Your task to perform on an android device: all mails in gmail Image 0: 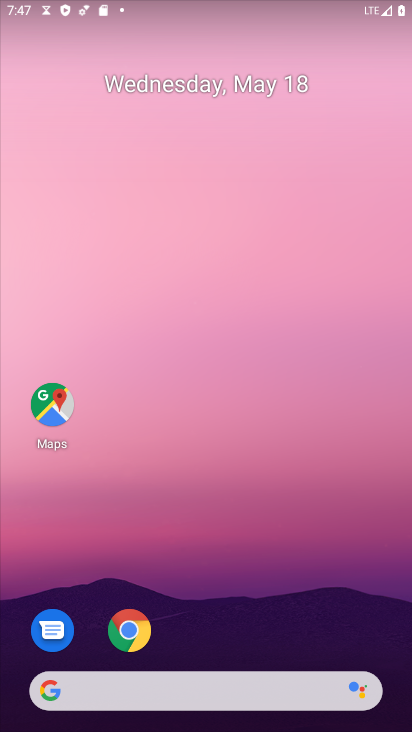
Step 0: drag from (318, 570) to (282, 139)
Your task to perform on an android device: all mails in gmail Image 1: 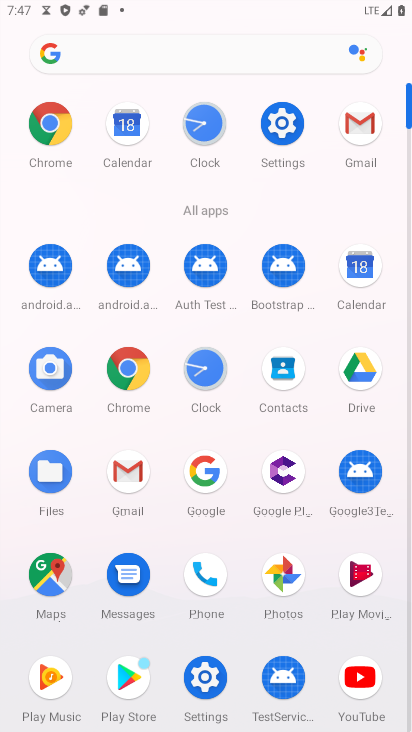
Step 1: click (360, 132)
Your task to perform on an android device: all mails in gmail Image 2: 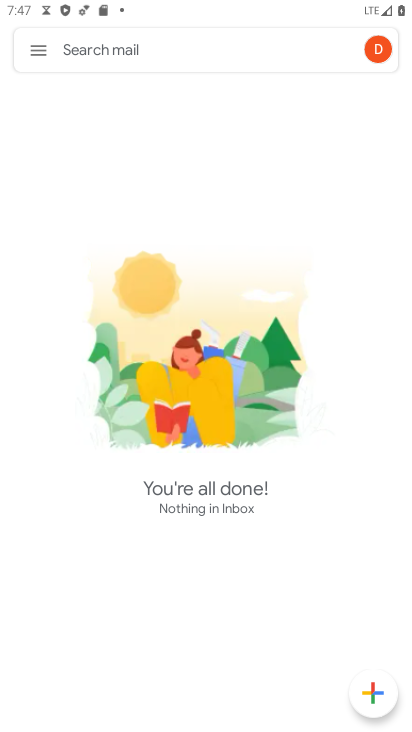
Step 2: click (14, 51)
Your task to perform on an android device: all mails in gmail Image 3: 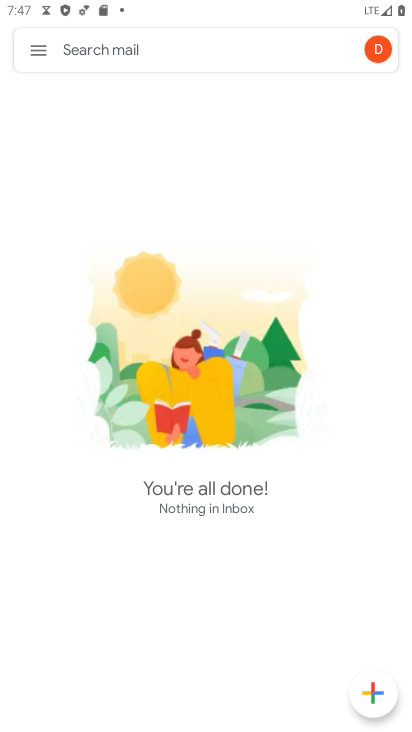
Step 3: click (27, 44)
Your task to perform on an android device: all mails in gmail Image 4: 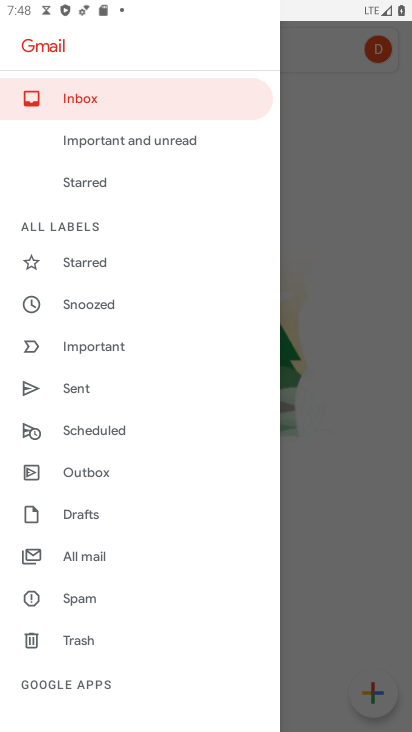
Step 4: click (126, 551)
Your task to perform on an android device: all mails in gmail Image 5: 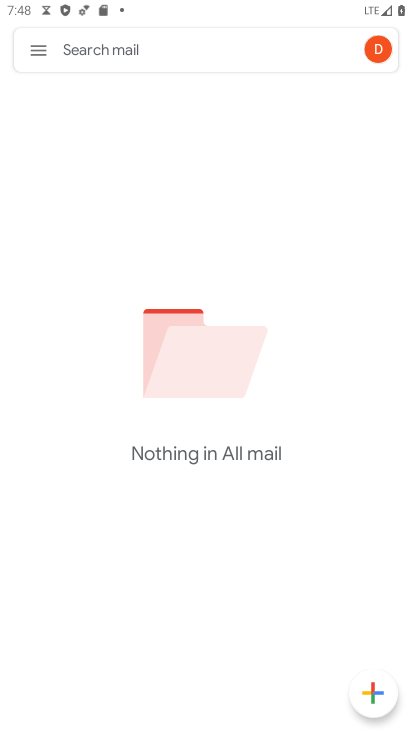
Step 5: task complete